Your task to perform on an android device: Go to Maps Image 0: 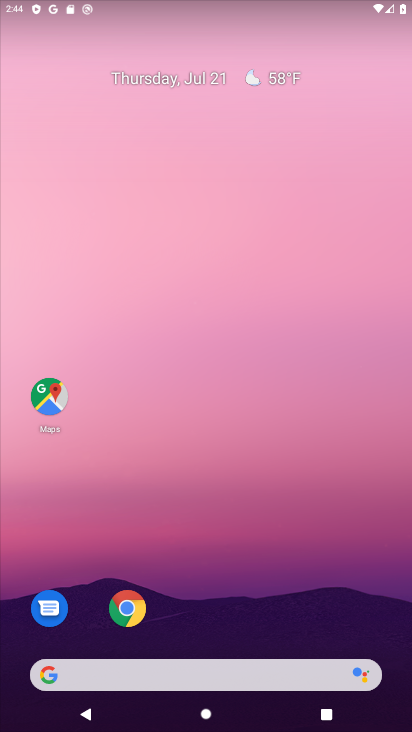
Step 0: click (45, 394)
Your task to perform on an android device: Go to Maps Image 1: 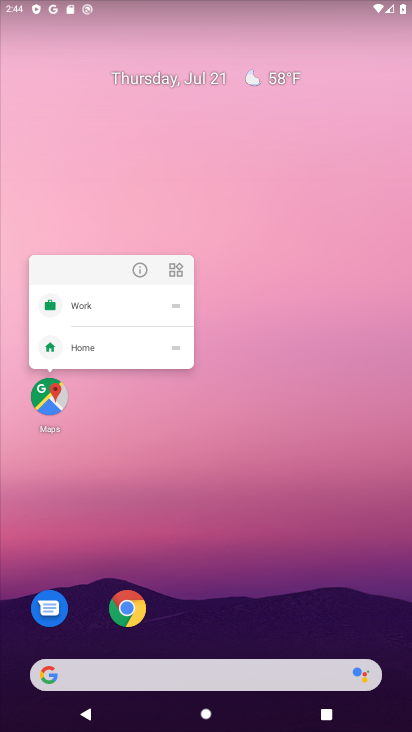
Step 1: click (47, 392)
Your task to perform on an android device: Go to Maps Image 2: 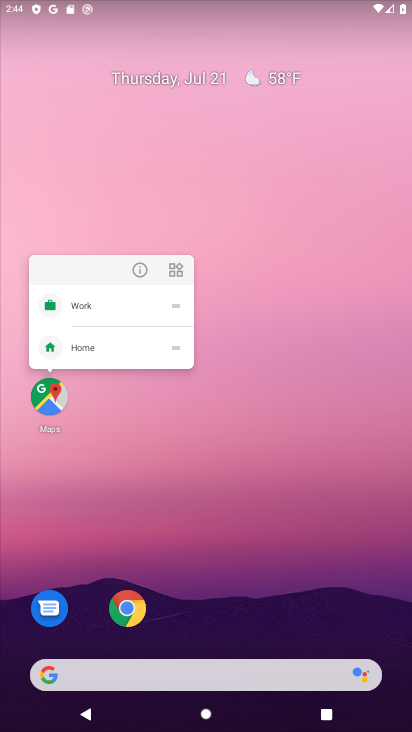
Step 2: click (46, 388)
Your task to perform on an android device: Go to Maps Image 3: 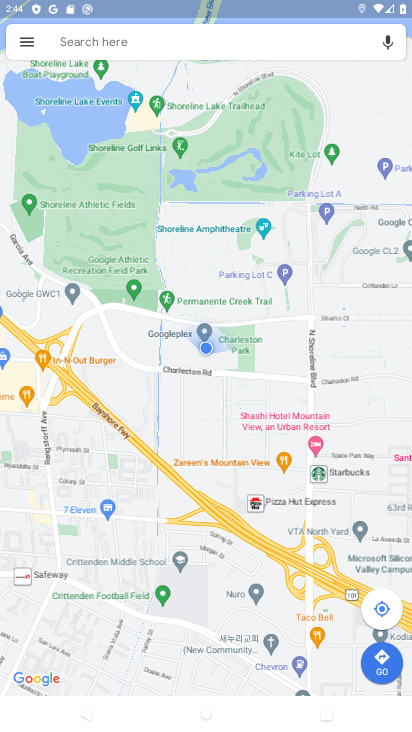
Step 3: task complete